Your task to perform on an android device: check android version Image 0: 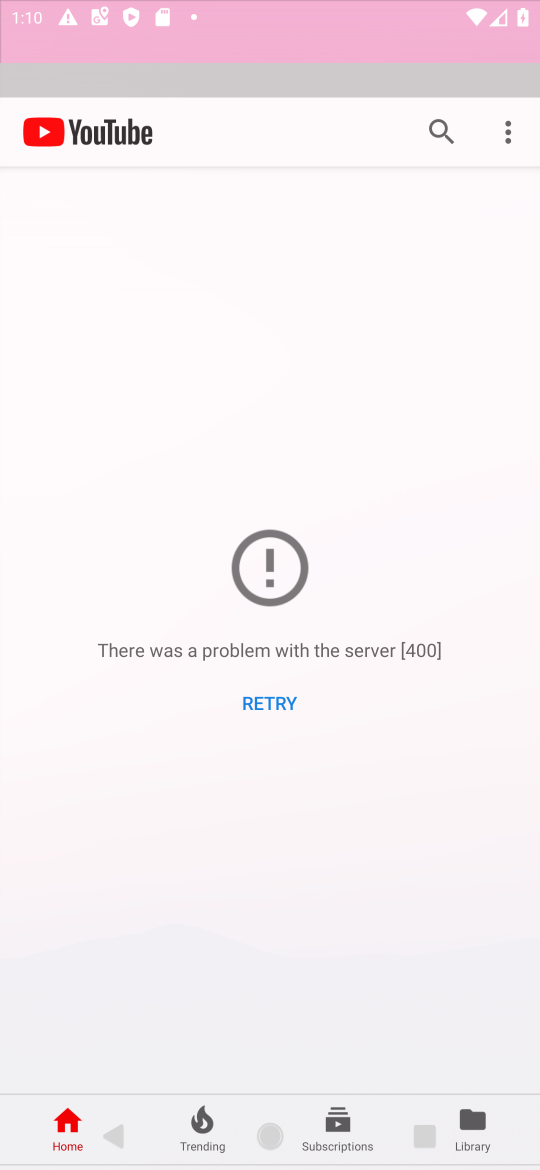
Step 0: press home button
Your task to perform on an android device: check android version Image 1: 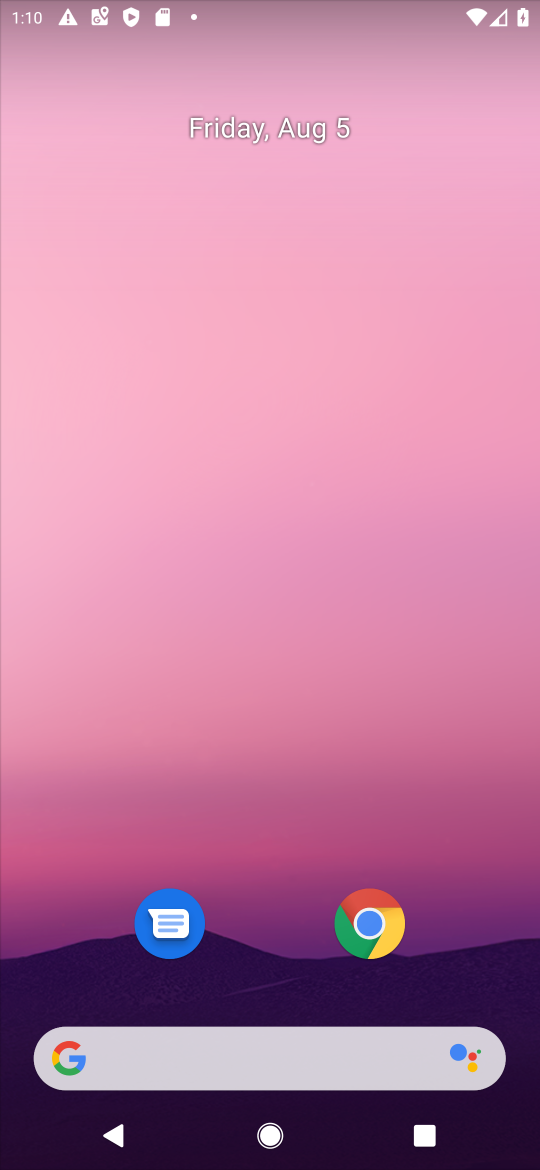
Step 1: drag from (304, 972) to (171, 67)
Your task to perform on an android device: check android version Image 2: 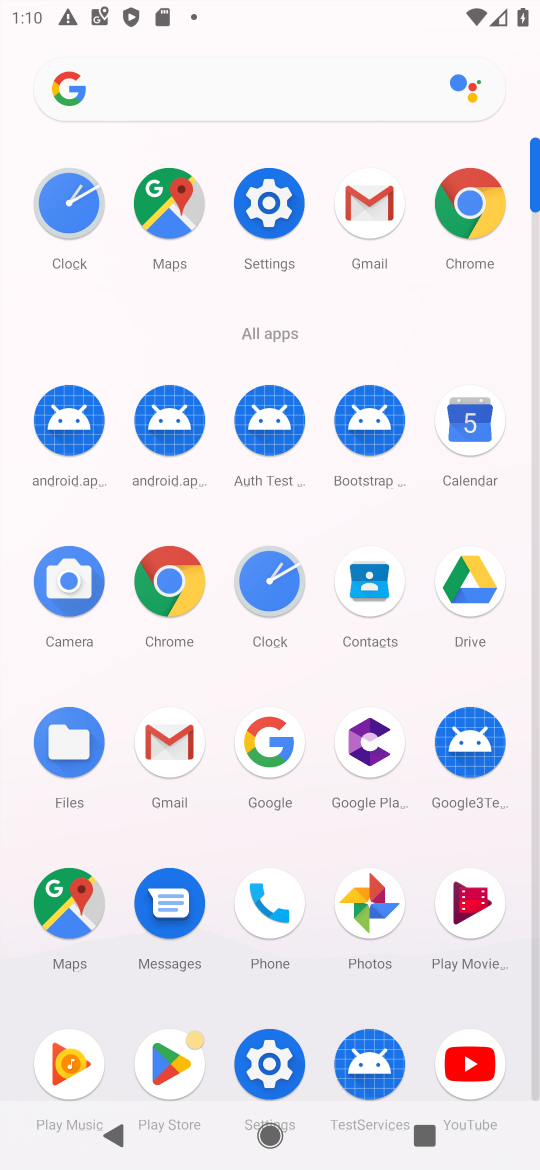
Step 2: click (248, 1057)
Your task to perform on an android device: check android version Image 3: 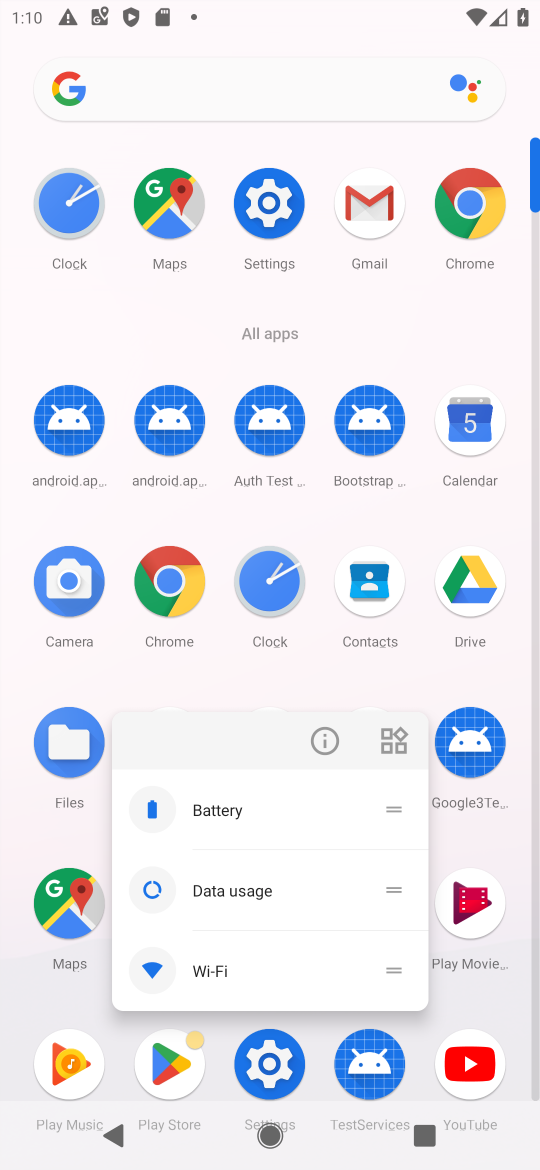
Step 3: click (261, 1072)
Your task to perform on an android device: check android version Image 4: 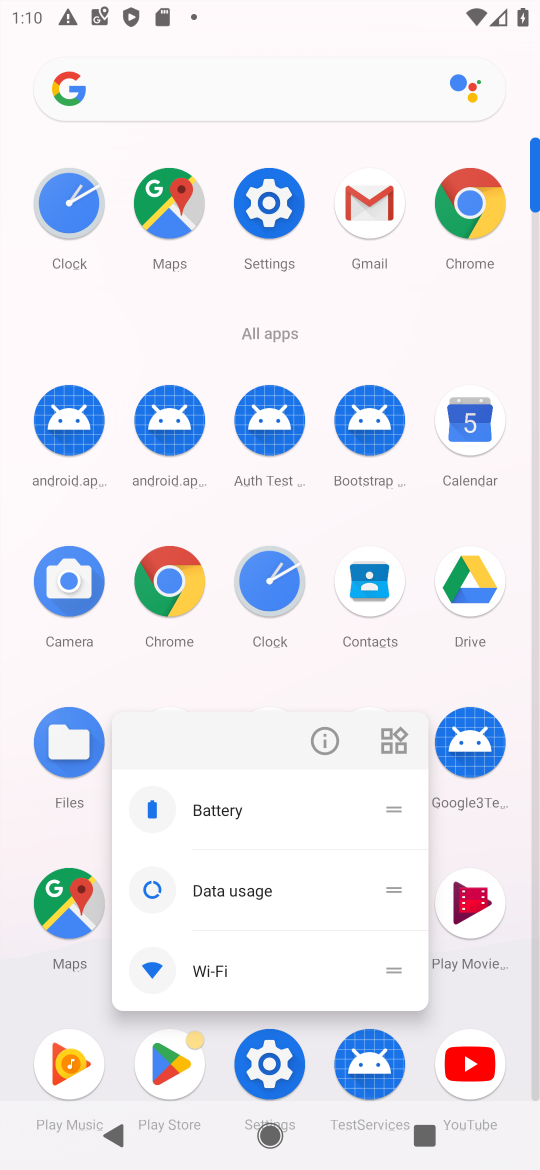
Step 4: click (261, 1070)
Your task to perform on an android device: check android version Image 5: 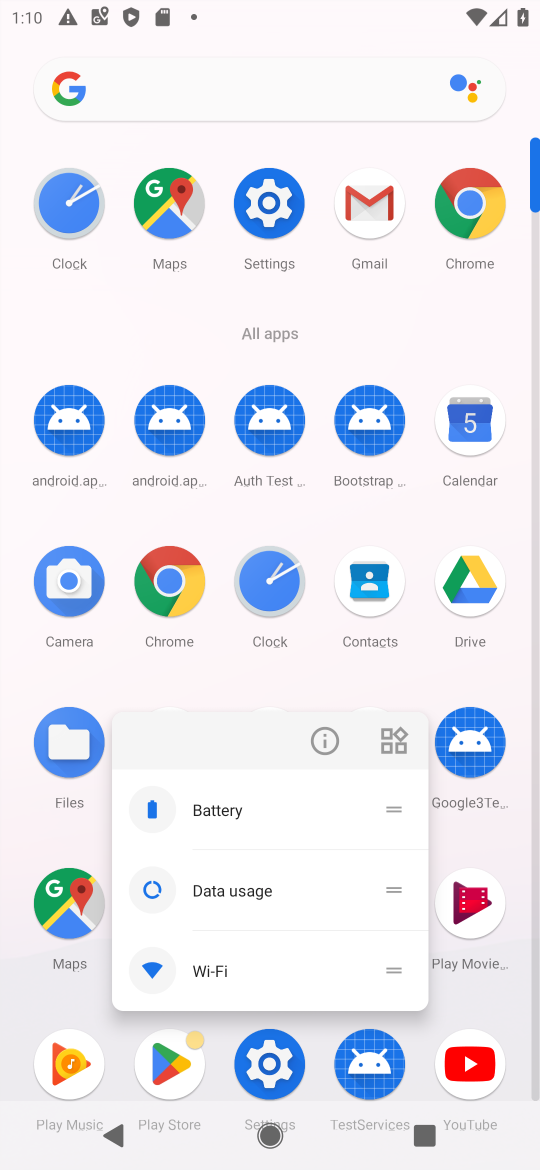
Step 5: click (261, 1070)
Your task to perform on an android device: check android version Image 6: 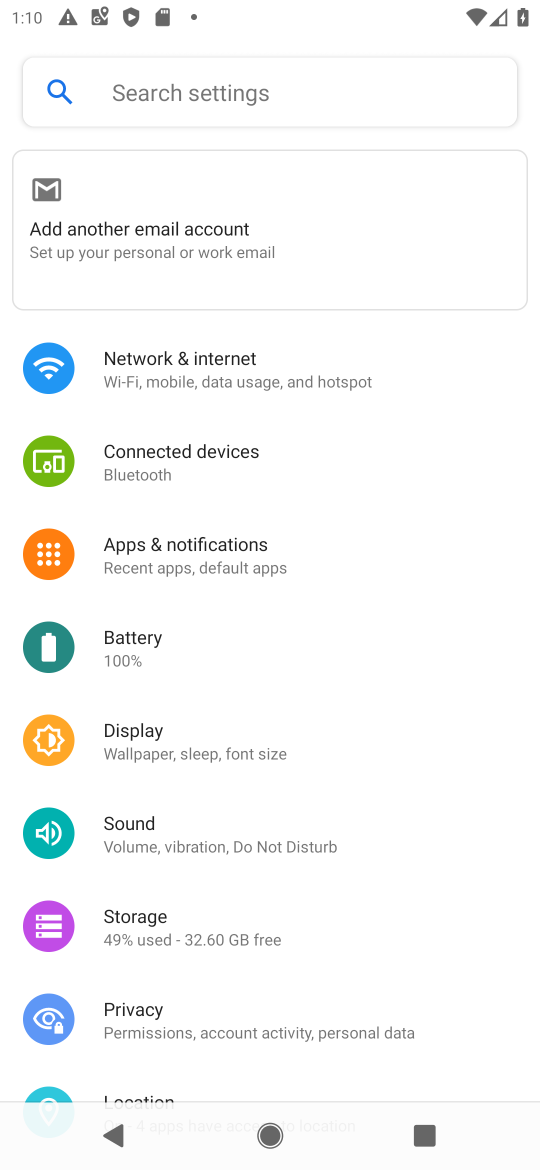
Step 6: drag from (377, 944) to (336, 129)
Your task to perform on an android device: check android version Image 7: 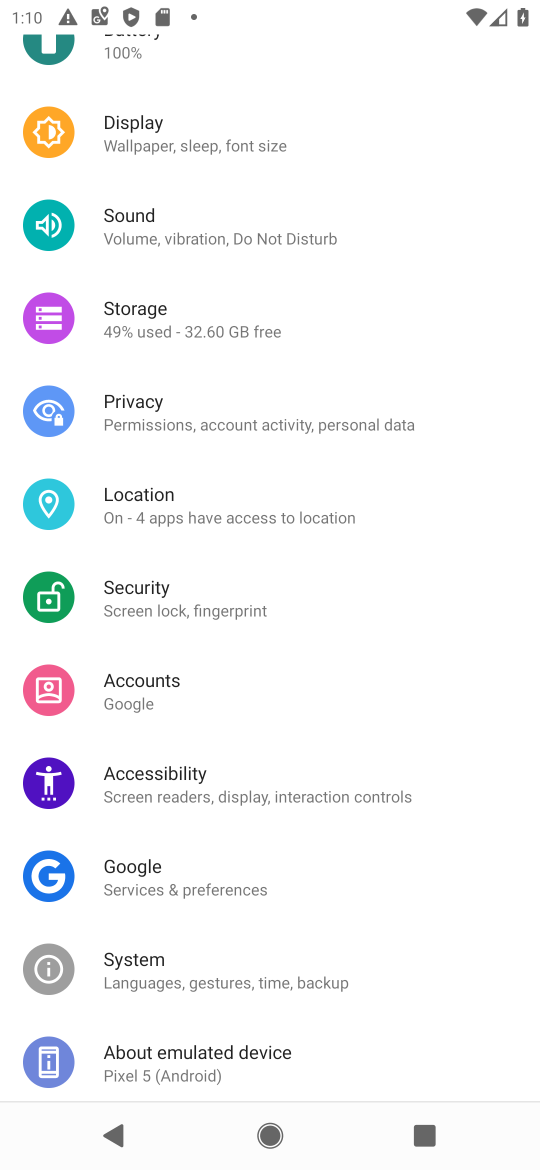
Step 7: click (166, 1047)
Your task to perform on an android device: check android version Image 8: 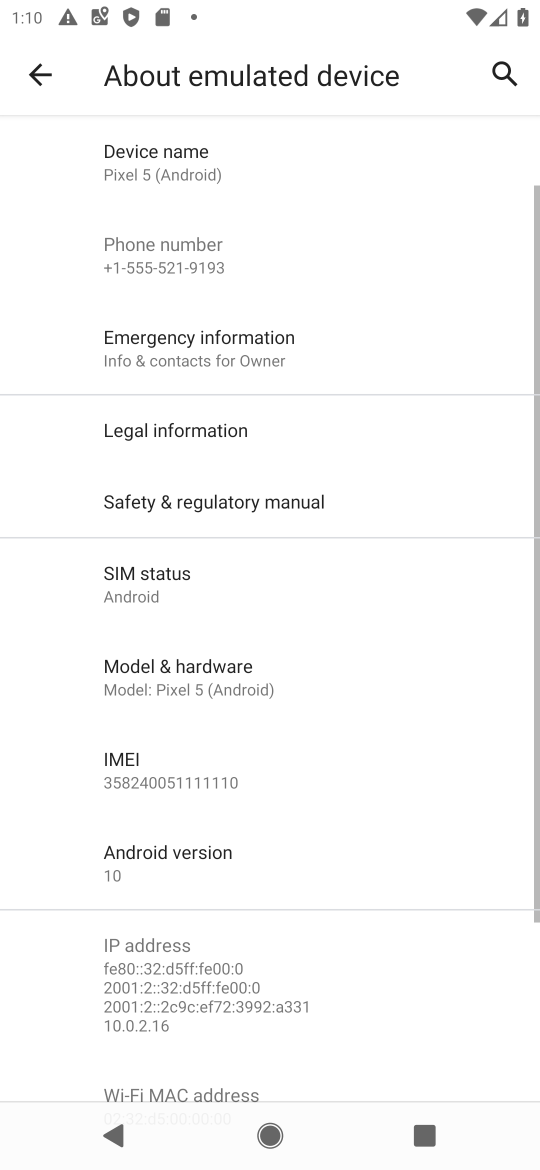
Step 8: drag from (246, 1015) to (175, 353)
Your task to perform on an android device: check android version Image 9: 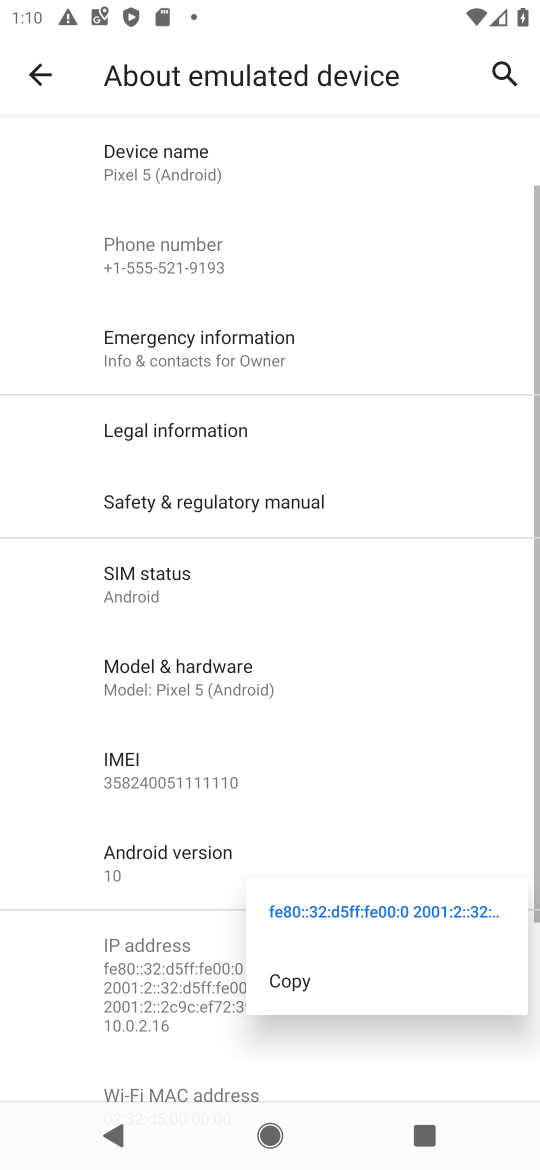
Step 9: drag from (240, 816) to (153, 173)
Your task to perform on an android device: check android version Image 10: 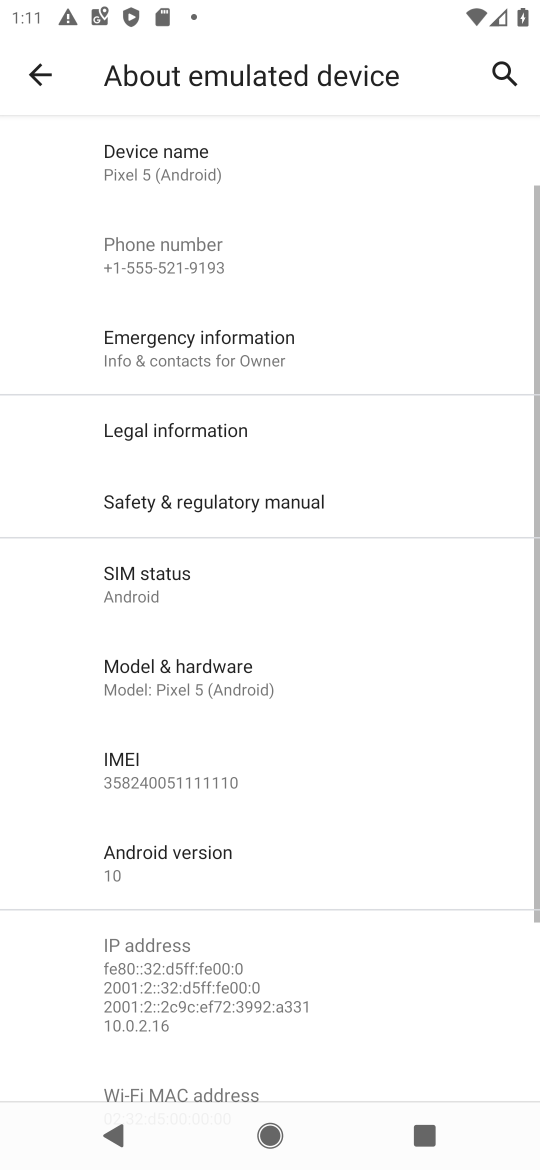
Step 10: click (150, 849)
Your task to perform on an android device: check android version Image 11: 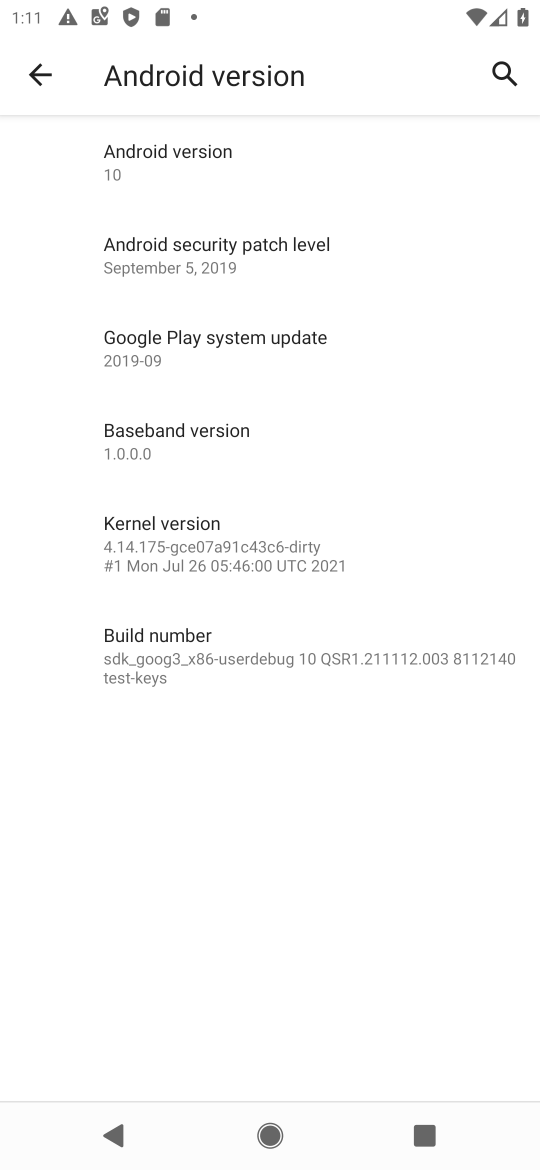
Step 11: task complete